Your task to perform on an android device: allow cookies in the chrome app Image 0: 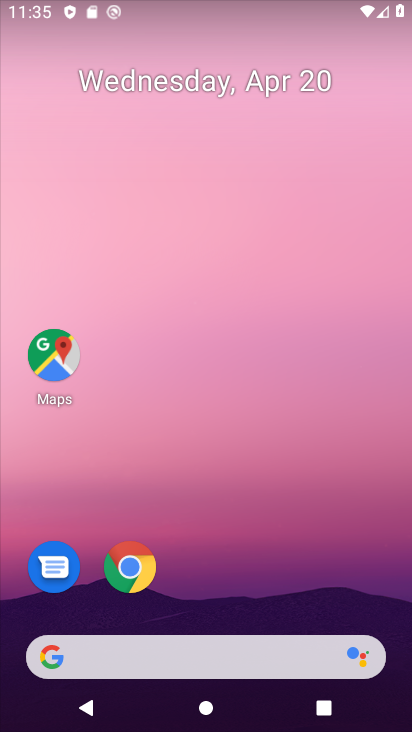
Step 0: drag from (185, 487) to (216, 188)
Your task to perform on an android device: allow cookies in the chrome app Image 1: 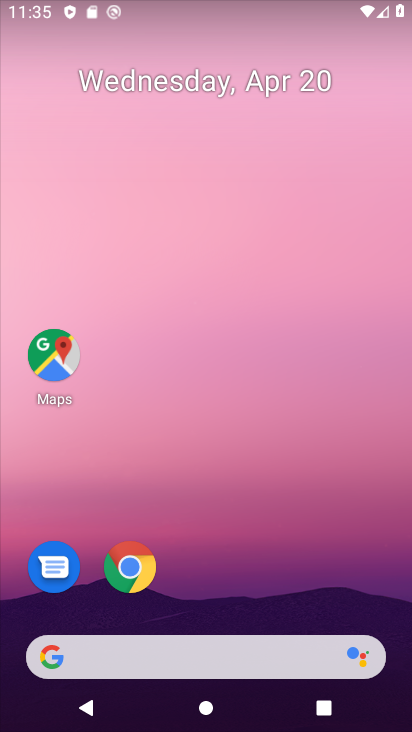
Step 1: drag from (210, 633) to (190, 212)
Your task to perform on an android device: allow cookies in the chrome app Image 2: 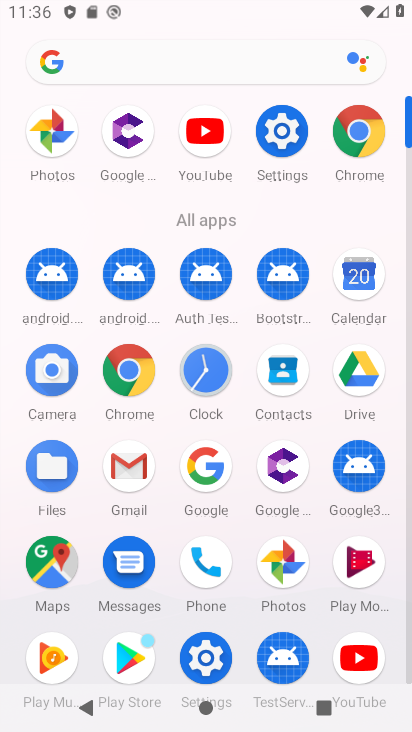
Step 2: click (130, 373)
Your task to perform on an android device: allow cookies in the chrome app Image 3: 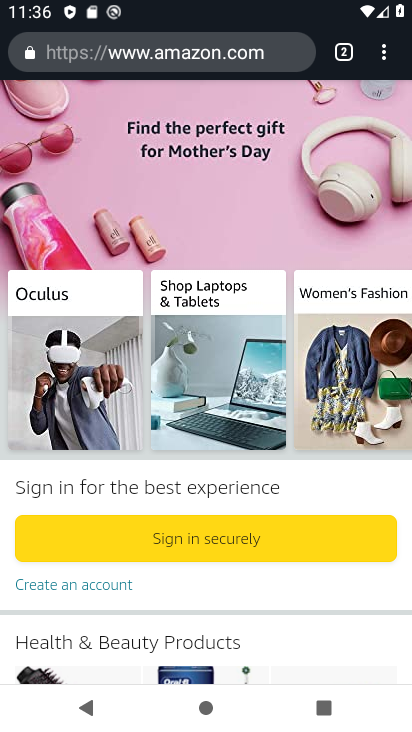
Step 3: click (391, 48)
Your task to perform on an android device: allow cookies in the chrome app Image 4: 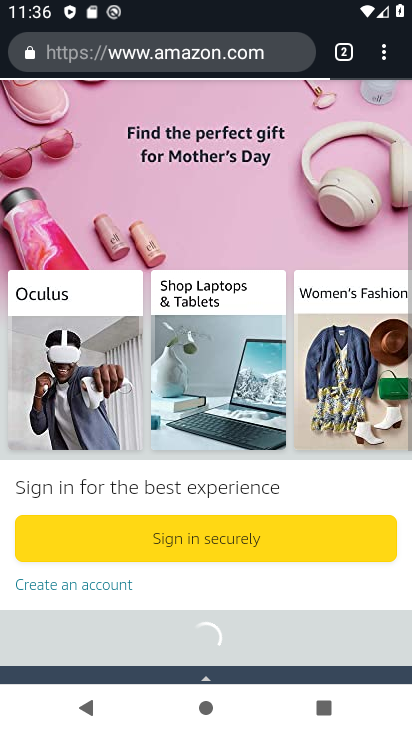
Step 4: click (382, 49)
Your task to perform on an android device: allow cookies in the chrome app Image 5: 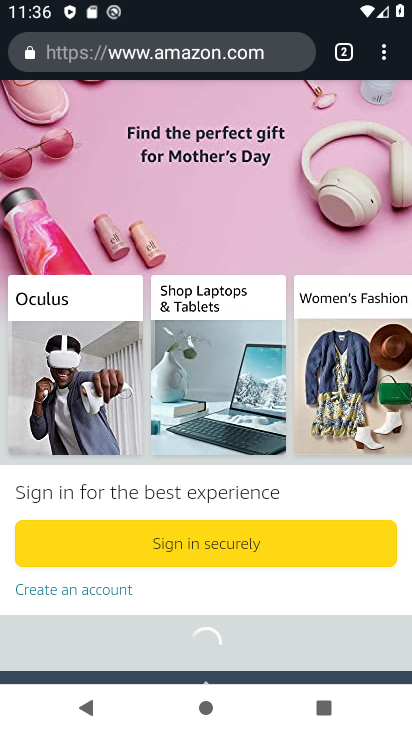
Step 5: click (382, 49)
Your task to perform on an android device: allow cookies in the chrome app Image 6: 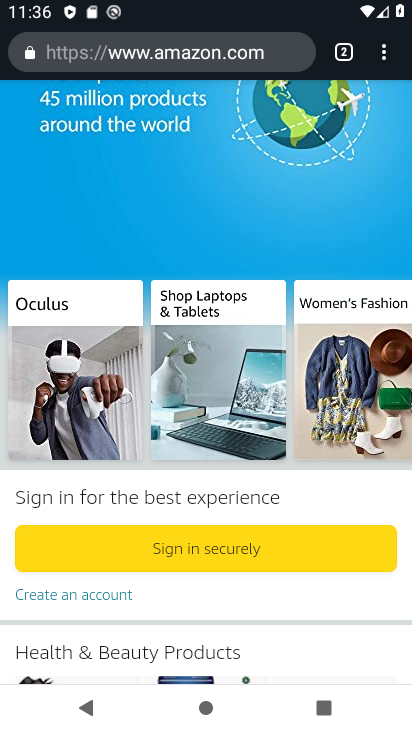
Step 6: click (384, 51)
Your task to perform on an android device: allow cookies in the chrome app Image 7: 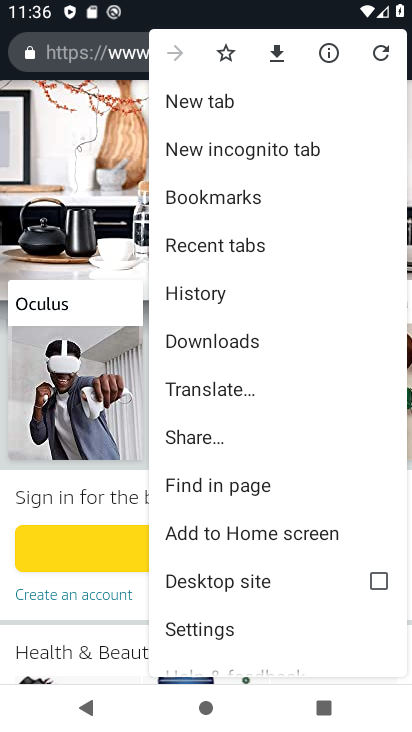
Step 7: click (214, 625)
Your task to perform on an android device: allow cookies in the chrome app Image 8: 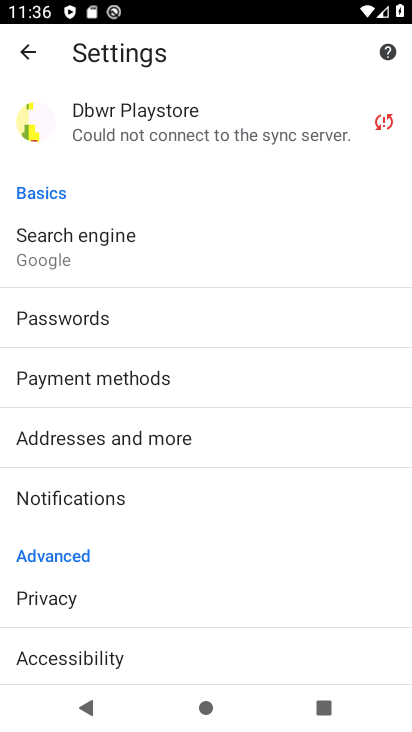
Step 8: drag from (135, 627) to (144, 341)
Your task to perform on an android device: allow cookies in the chrome app Image 9: 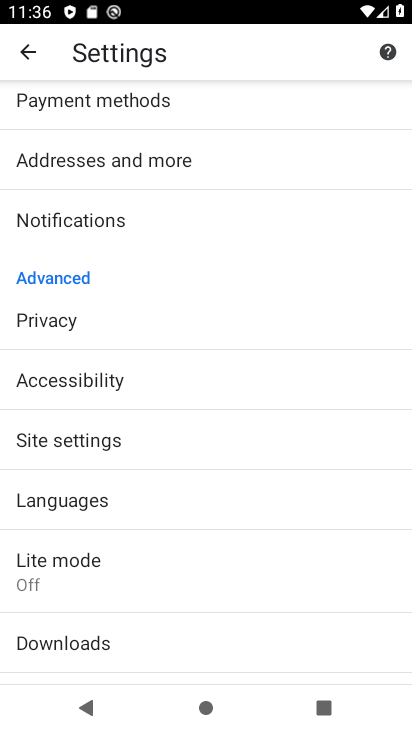
Step 9: drag from (127, 632) to (164, 336)
Your task to perform on an android device: allow cookies in the chrome app Image 10: 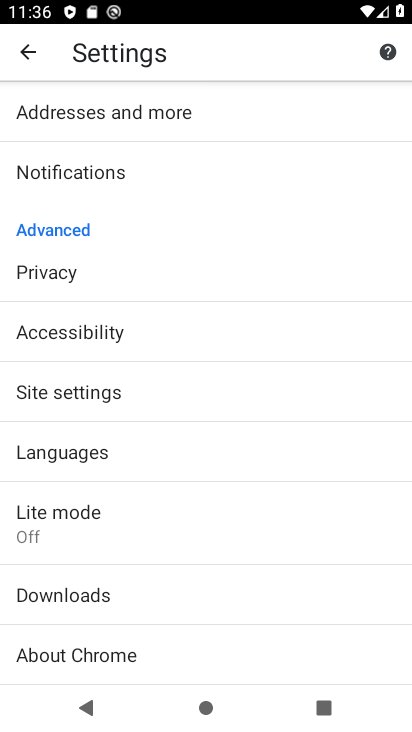
Step 10: click (79, 388)
Your task to perform on an android device: allow cookies in the chrome app Image 11: 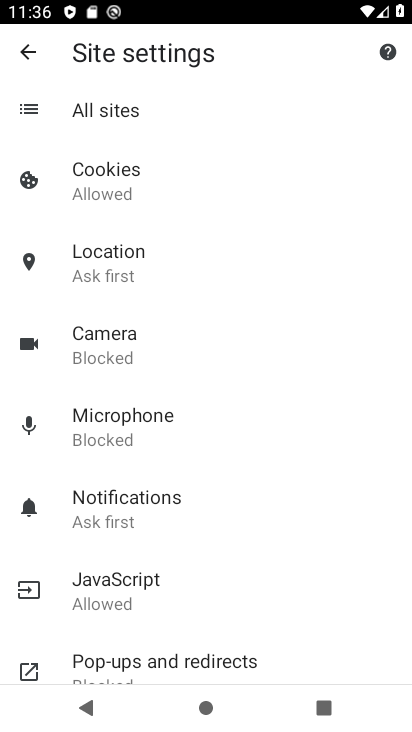
Step 11: click (138, 175)
Your task to perform on an android device: allow cookies in the chrome app Image 12: 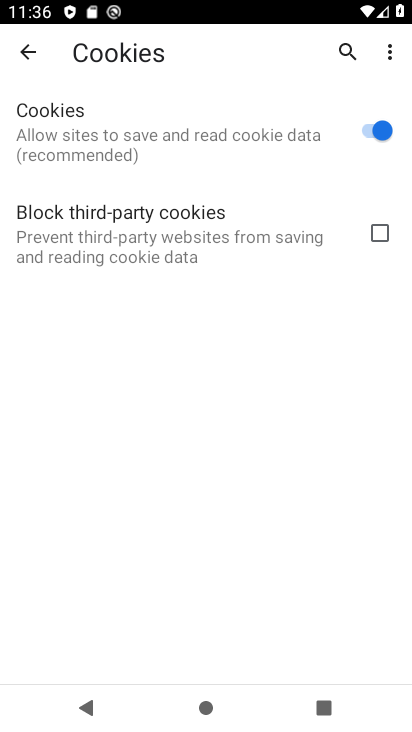
Step 12: task complete